Your task to perform on an android device: turn off picture-in-picture Image 0: 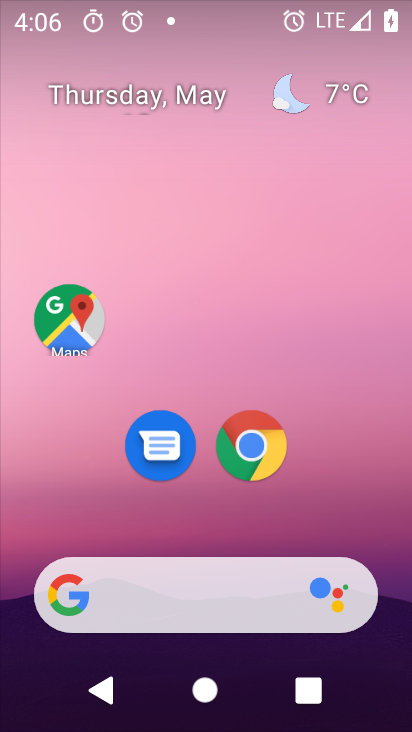
Step 0: click (251, 447)
Your task to perform on an android device: turn off picture-in-picture Image 1: 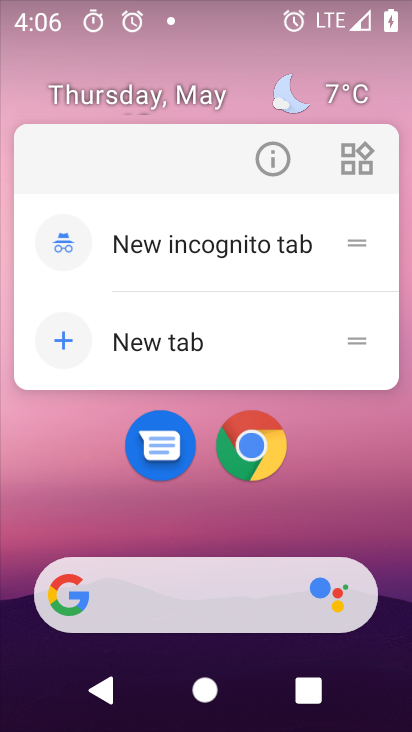
Step 1: click (275, 161)
Your task to perform on an android device: turn off picture-in-picture Image 2: 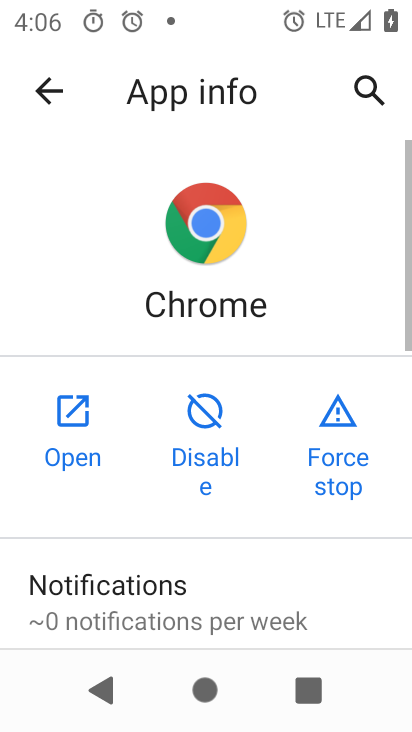
Step 2: drag from (287, 544) to (320, 156)
Your task to perform on an android device: turn off picture-in-picture Image 3: 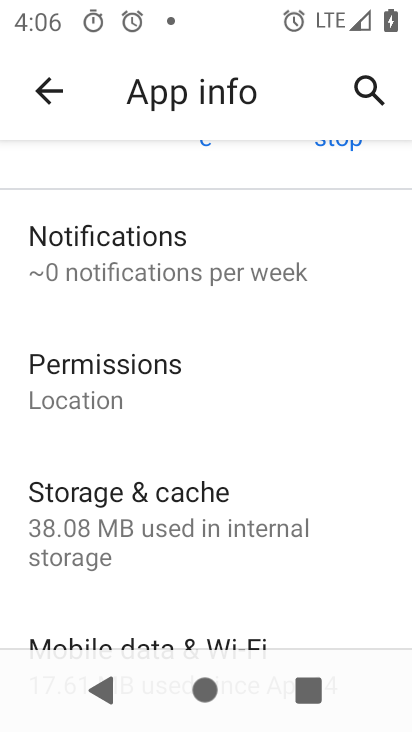
Step 3: drag from (279, 515) to (288, 114)
Your task to perform on an android device: turn off picture-in-picture Image 4: 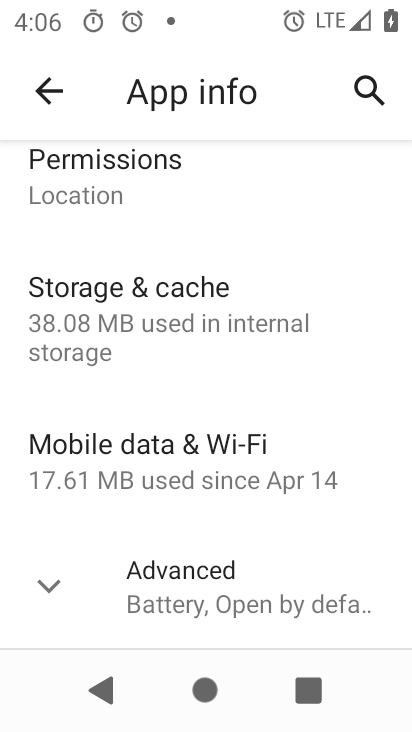
Step 4: click (53, 600)
Your task to perform on an android device: turn off picture-in-picture Image 5: 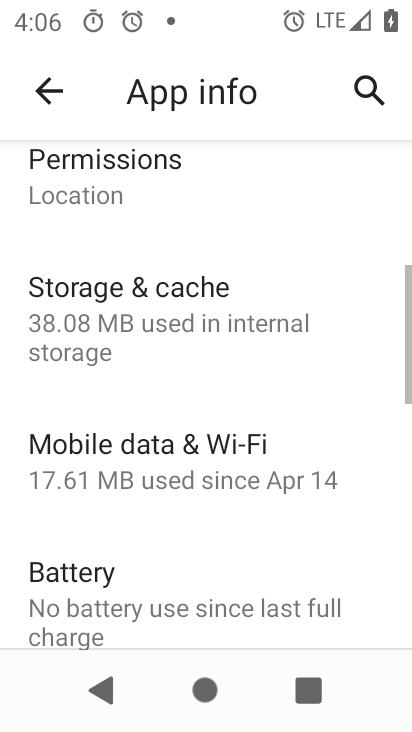
Step 5: drag from (204, 566) to (242, 95)
Your task to perform on an android device: turn off picture-in-picture Image 6: 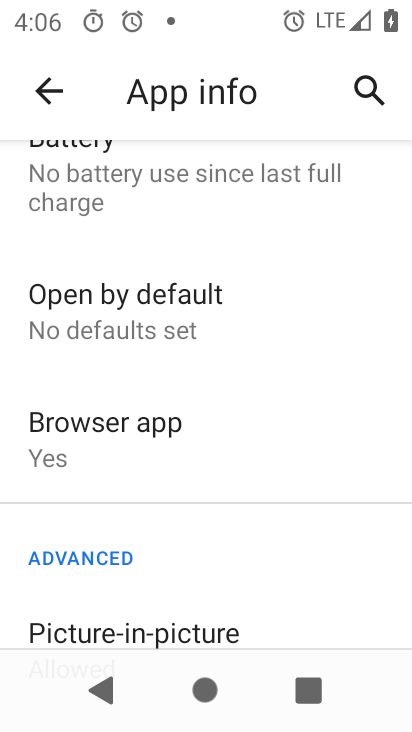
Step 6: drag from (209, 475) to (210, 190)
Your task to perform on an android device: turn off picture-in-picture Image 7: 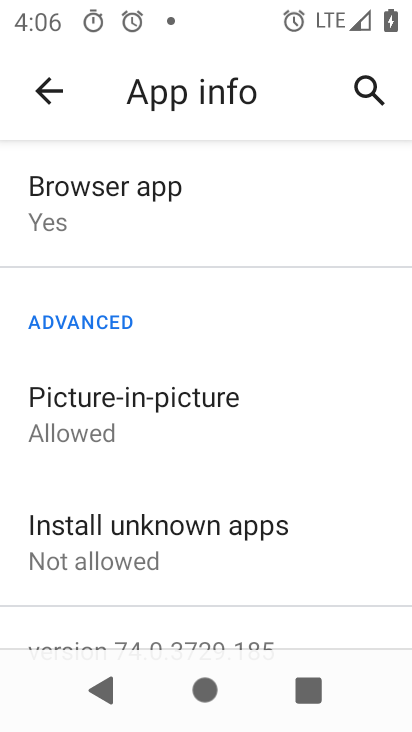
Step 7: click (94, 425)
Your task to perform on an android device: turn off picture-in-picture Image 8: 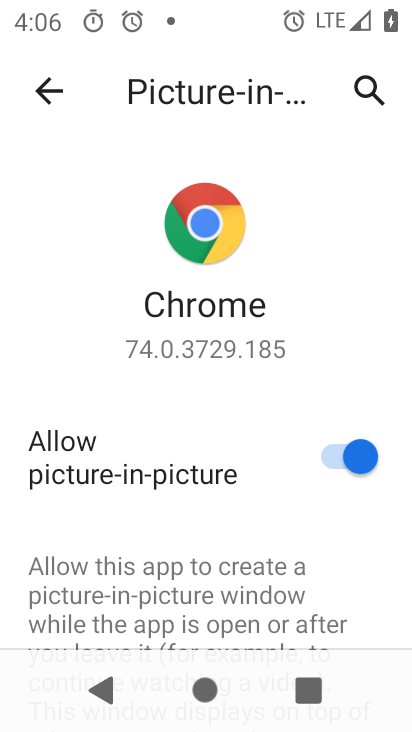
Step 8: click (370, 472)
Your task to perform on an android device: turn off picture-in-picture Image 9: 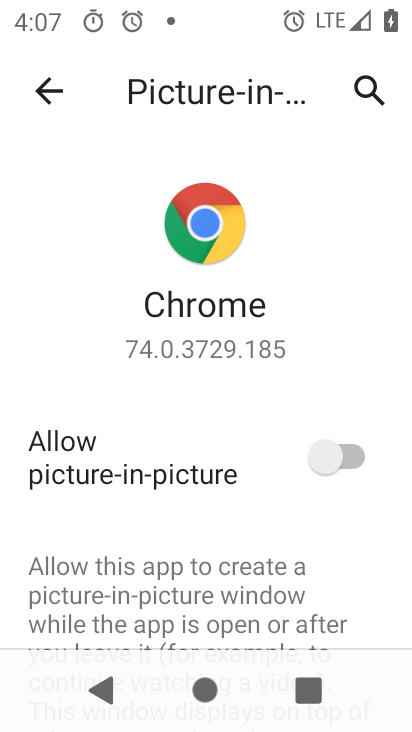
Step 9: task complete